Your task to perform on an android device: Open Google Maps and go to "Timeline" Image 0: 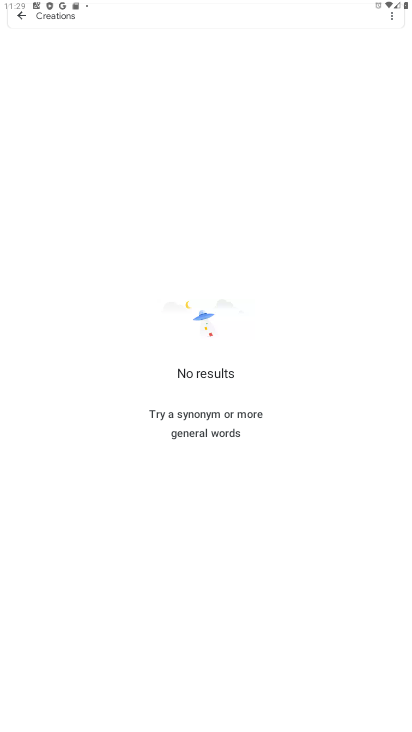
Step 0: press home button
Your task to perform on an android device: Open Google Maps and go to "Timeline" Image 1: 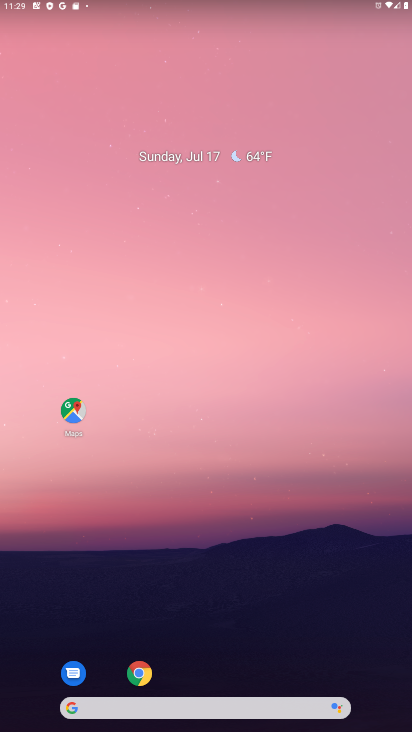
Step 1: click (78, 409)
Your task to perform on an android device: Open Google Maps and go to "Timeline" Image 2: 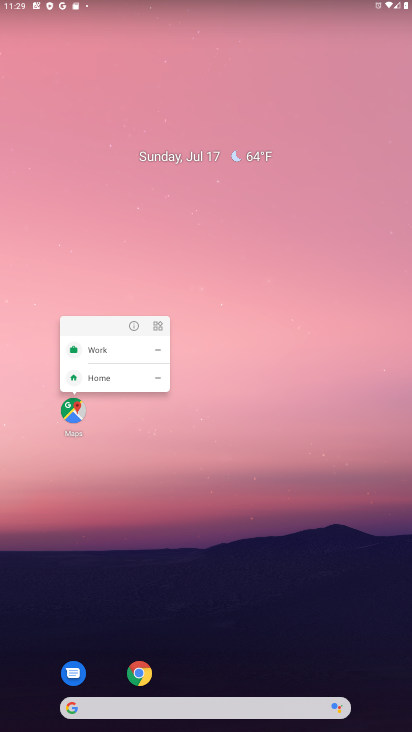
Step 2: click (78, 409)
Your task to perform on an android device: Open Google Maps and go to "Timeline" Image 3: 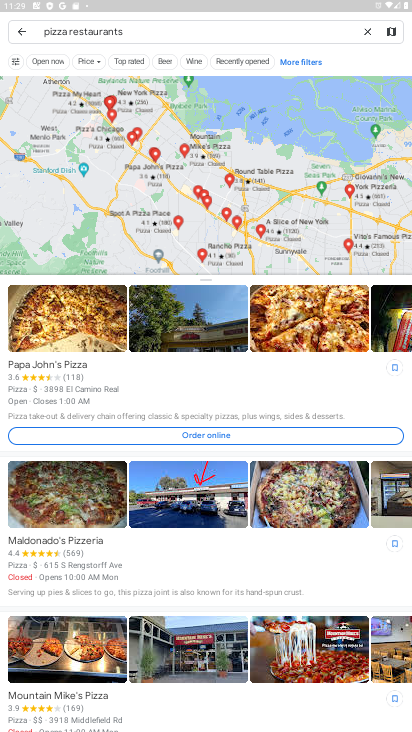
Step 3: click (372, 32)
Your task to perform on an android device: Open Google Maps and go to "Timeline" Image 4: 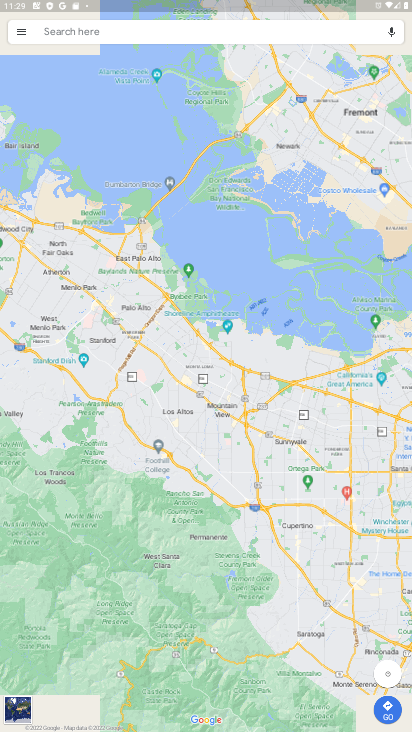
Step 4: click (23, 29)
Your task to perform on an android device: Open Google Maps and go to "Timeline" Image 5: 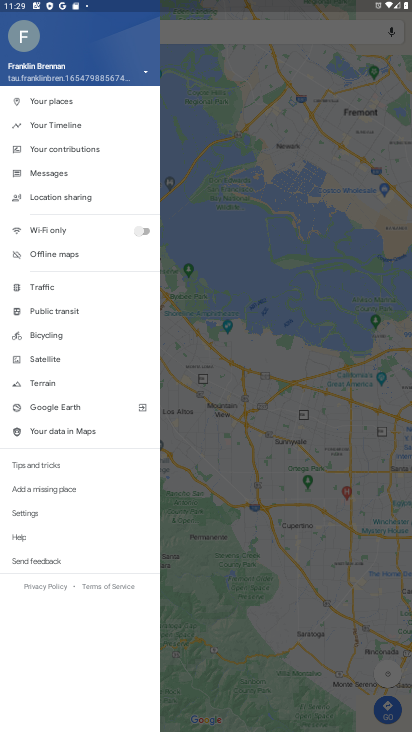
Step 5: click (56, 127)
Your task to perform on an android device: Open Google Maps and go to "Timeline" Image 6: 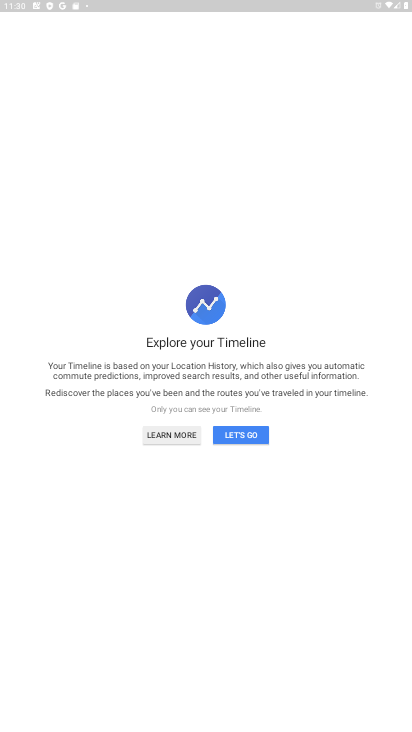
Step 6: click (239, 437)
Your task to perform on an android device: Open Google Maps and go to "Timeline" Image 7: 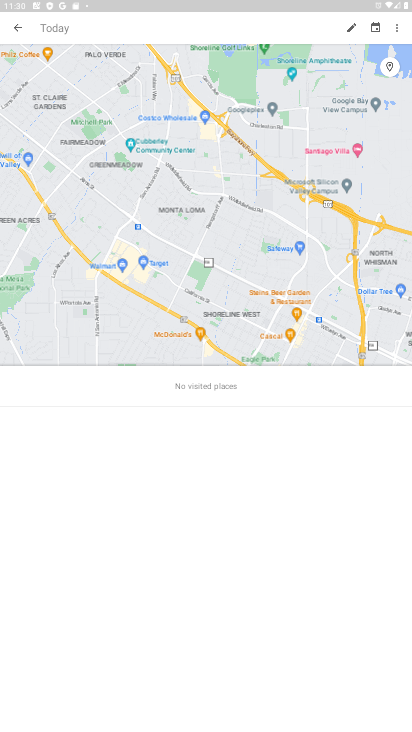
Step 7: task complete